Your task to perform on an android device: change the clock style Image 0: 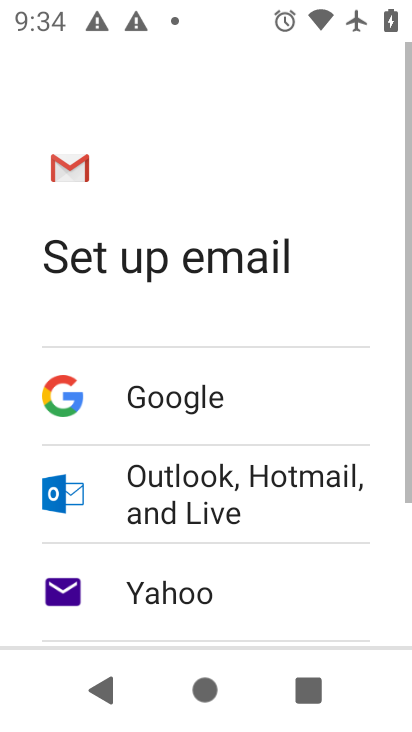
Step 0: press home button
Your task to perform on an android device: change the clock style Image 1: 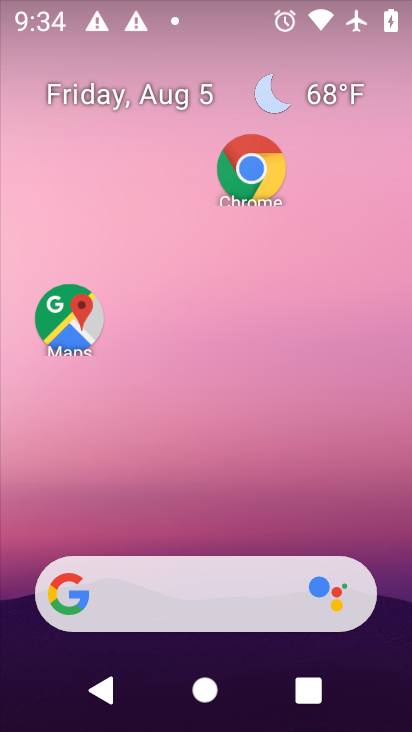
Step 1: drag from (202, 502) to (148, 190)
Your task to perform on an android device: change the clock style Image 2: 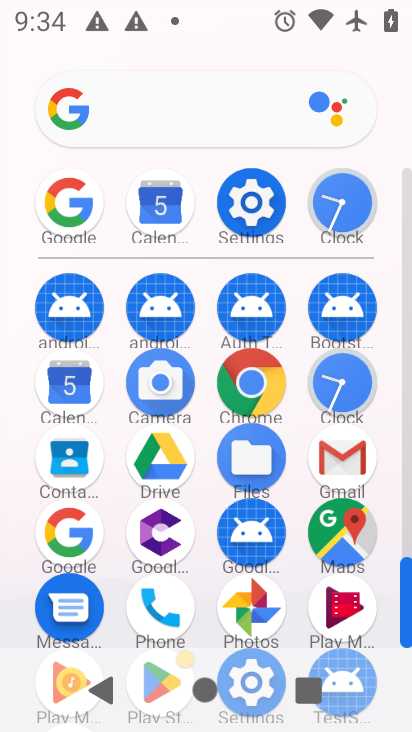
Step 2: click (331, 197)
Your task to perform on an android device: change the clock style Image 3: 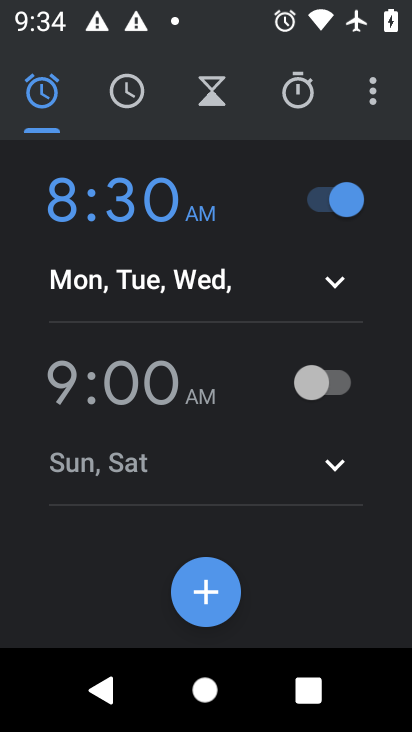
Step 3: click (367, 105)
Your task to perform on an android device: change the clock style Image 4: 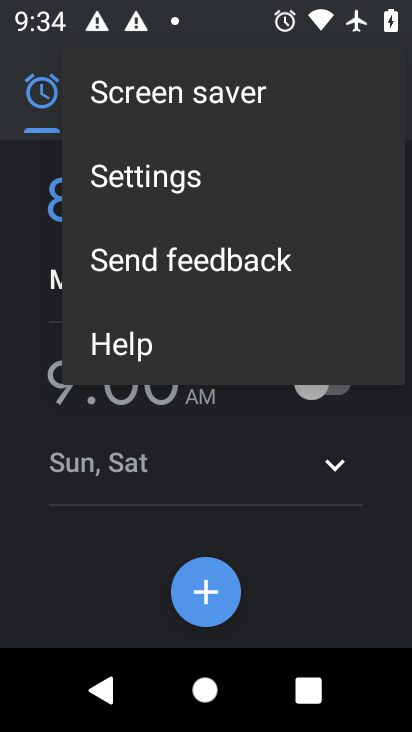
Step 4: click (180, 177)
Your task to perform on an android device: change the clock style Image 5: 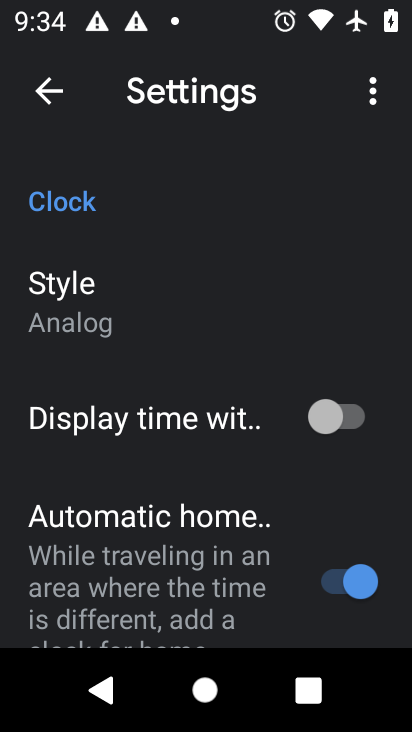
Step 5: click (97, 293)
Your task to perform on an android device: change the clock style Image 6: 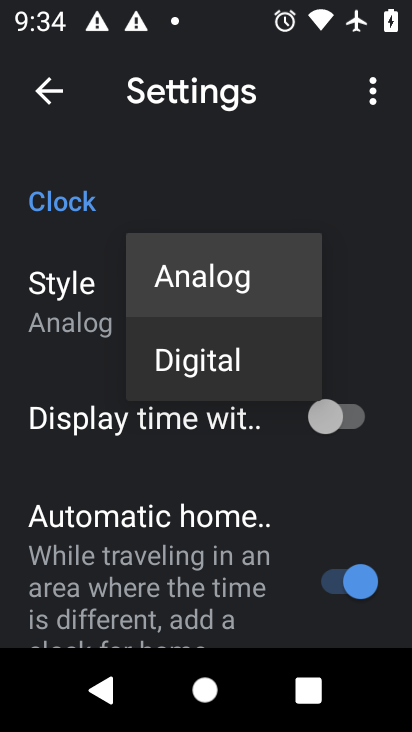
Step 6: click (170, 348)
Your task to perform on an android device: change the clock style Image 7: 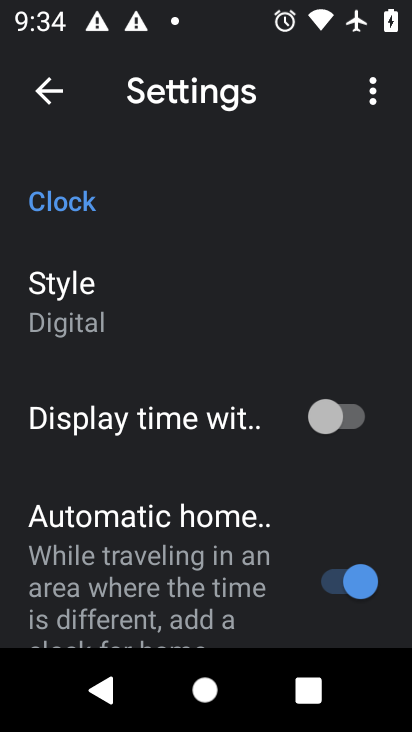
Step 7: task complete